Your task to perform on an android device: Show me popular videos on Youtube Image 0: 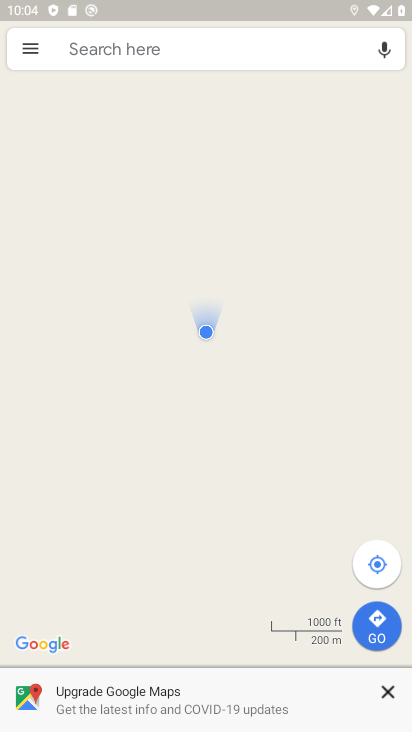
Step 0: press home button
Your task to perform on an android device: Show me popular videos on Youtube Image 1: 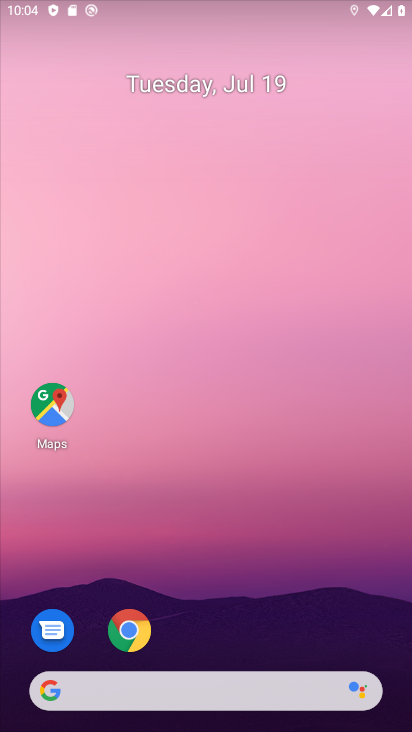
Step 1: drag from (213, 661) to (187, 233)
Your task to perform on an android device: Show me popular videos on Youtube Image 2: 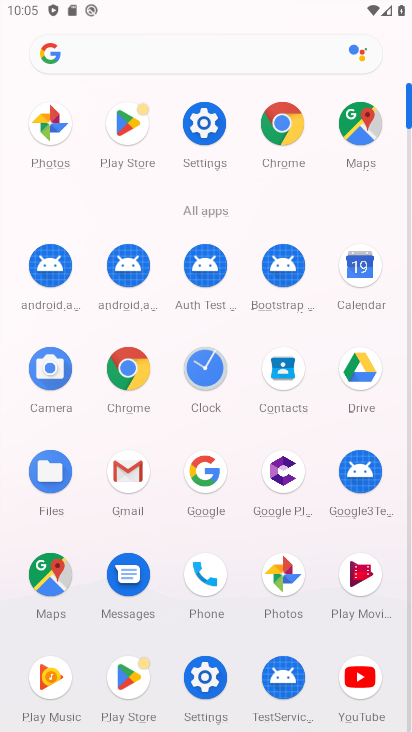
Step 2: click (356, 678)
Your task to perform on an android device: Show me popular videos on Youtube Image 3: 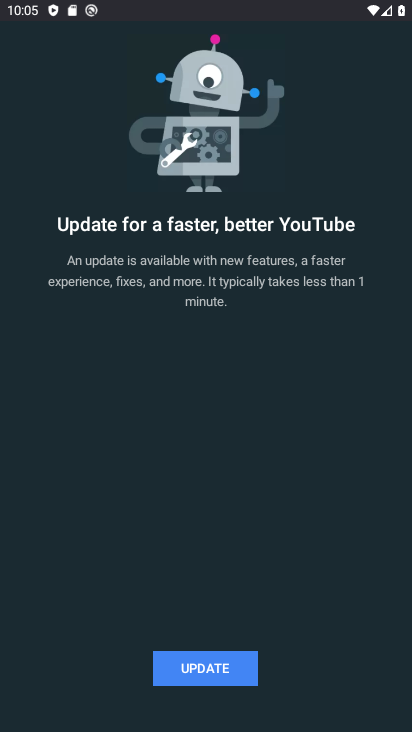
Step 3: click (228, 665)
Your task to perform on an android device: Show me popular videos on Youtube Image 4: 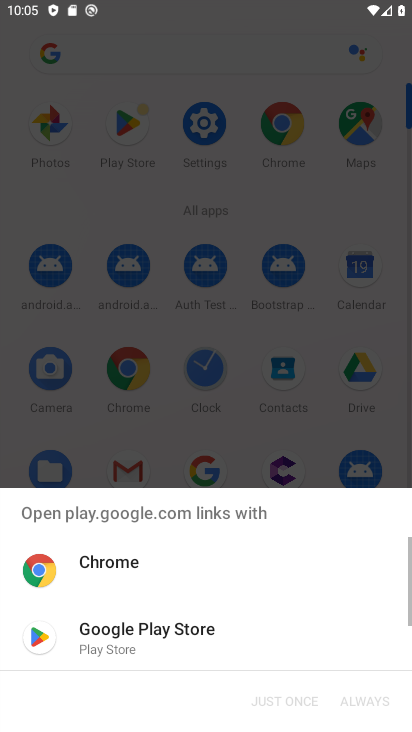
Step 4: click (125, 639)
Your task to perform on an android device: Show me popular videos on Youtube Image 5: 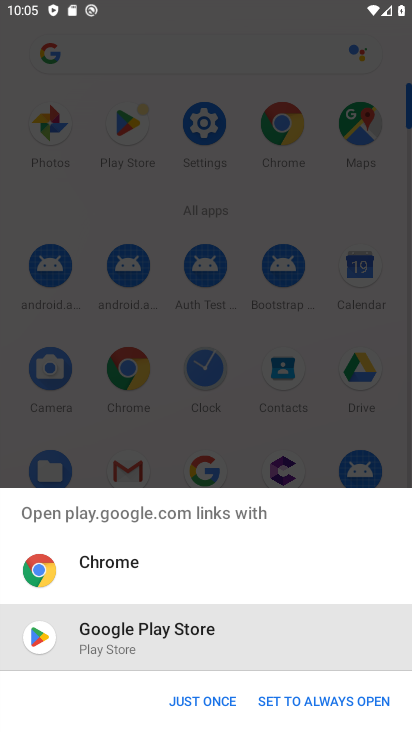
Step 5: click (231, 697)
Your task to perform on an android device: Show me popular videos on Youtube Image 6: 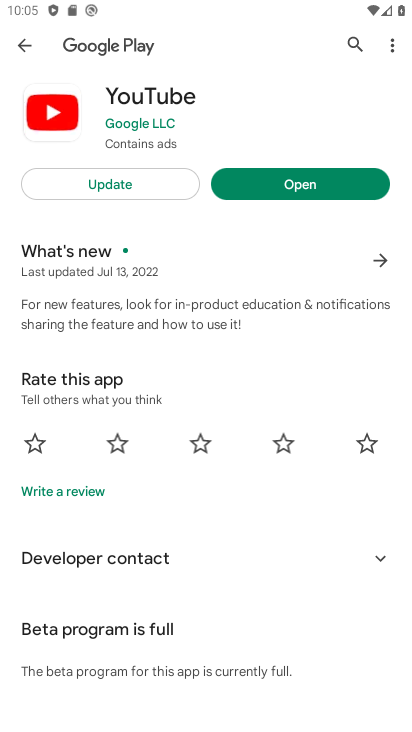
Step 6: click (85, 187)
Your task to perform on an android device: Show me popular videos on Youtube Image 7: 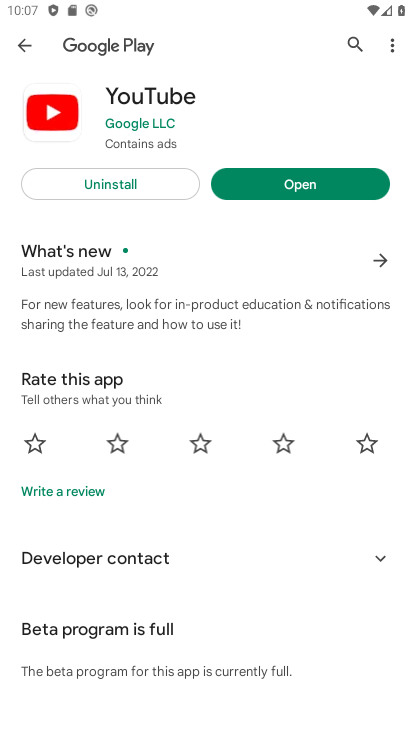
Step 7: click (129, 170)
Your task to perform on an android device: Show me popular videos on Youtube Image 8: 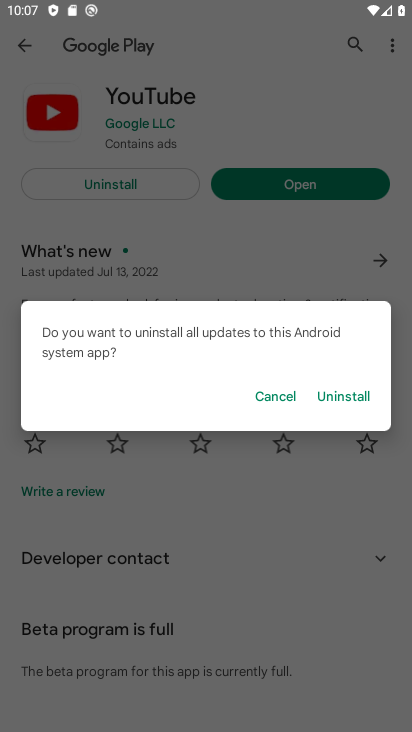
Step 8: click (279, 403)
Your task to perform on an android device: Show me popular videos on Youtube Image 9: 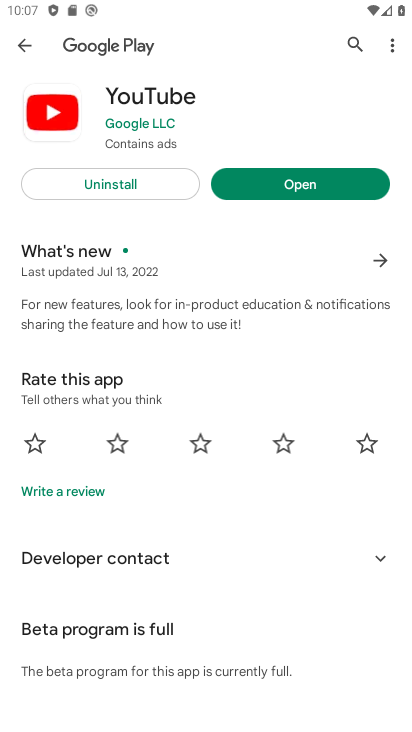
Step 9: click (274, 189)
Your task to perform on an android device: Show me popular videos on Youtube Image 10: 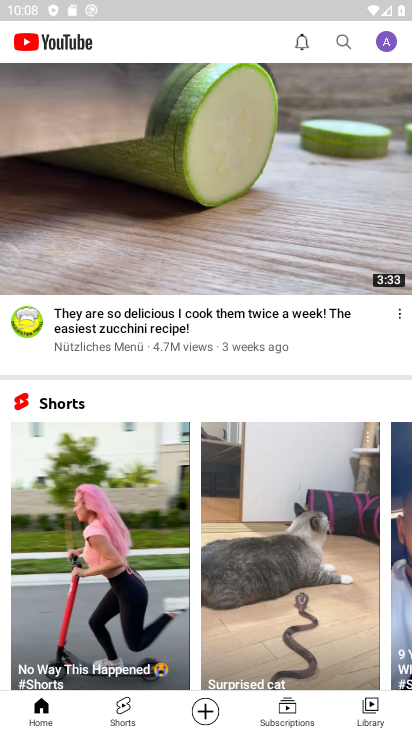
Step 10: task complete